Your task to perform on an android device: turn off sleep mode Image 0: 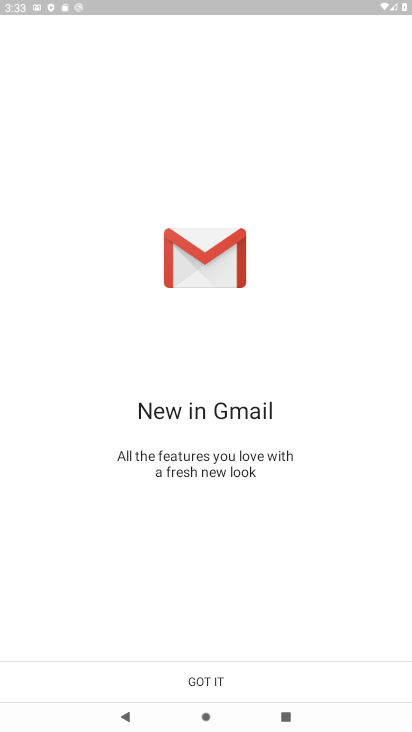
Step 0: press home button
Your task to perform on an android device: turn off sleep mode Image 1: 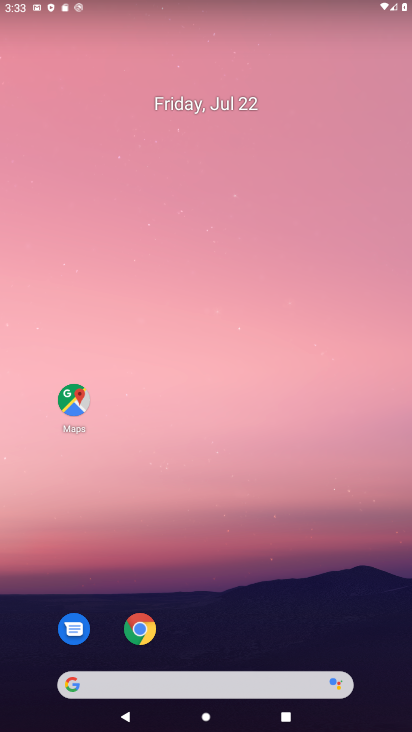
Step 1: drag from (361, 624) to (276, 23)
Your task to perform on an android device: turn off sleep mode Image 2: 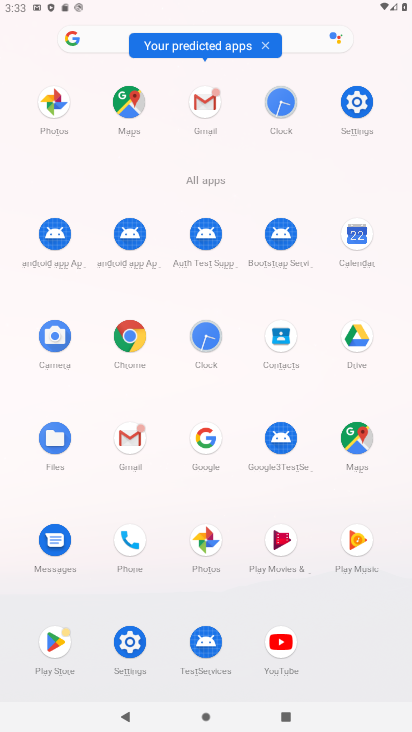
Step 2: click (358, 100)
Your task to perform on an android device: turn off sleep mode Image 3: 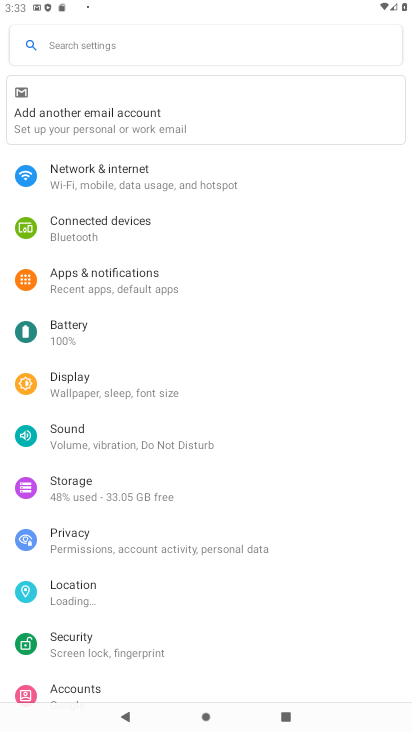
Step 3: click (90, 391)
Your task to perform on an android device: turn off sleep mode Image 4: 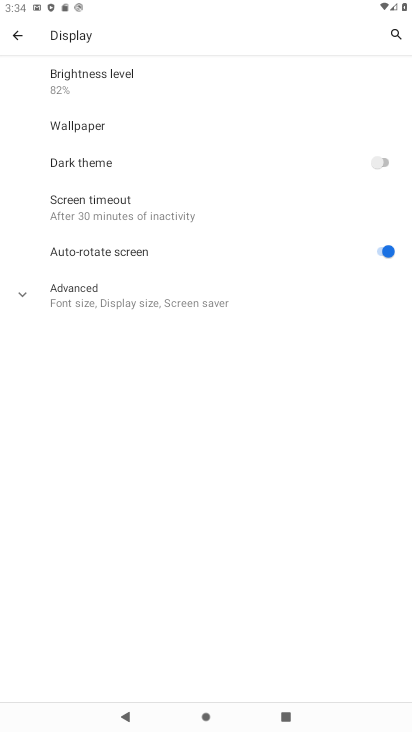
Step 4: click (110, 203)
Your task to perform on an android device: turn off sleep mode Image 5: 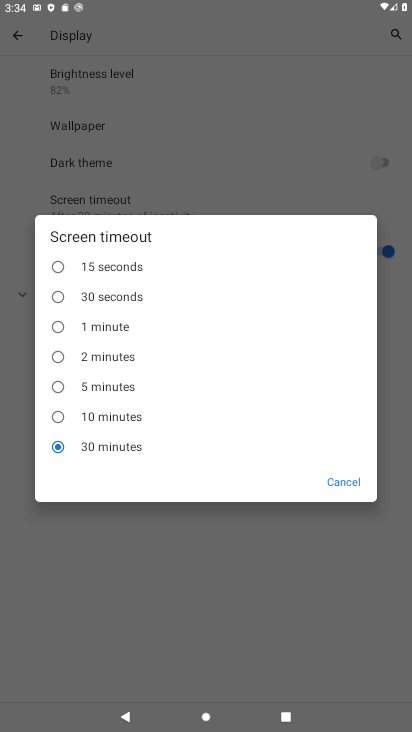
Step 5: task complete